Your task to perform on an android device: What is the recent news? Image 0: 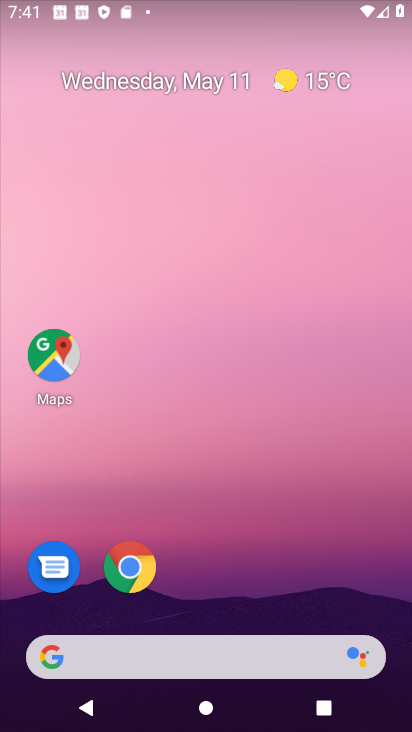
Step 0: press home button
Your task to perform on an android device: What is the recent news? Image 1: 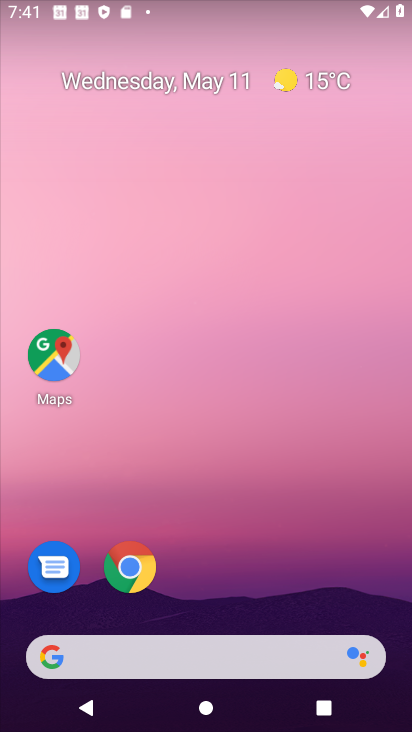
Step 1: click (60, 660)
Your task to perform on an android device: What is the recent news? Image 2: 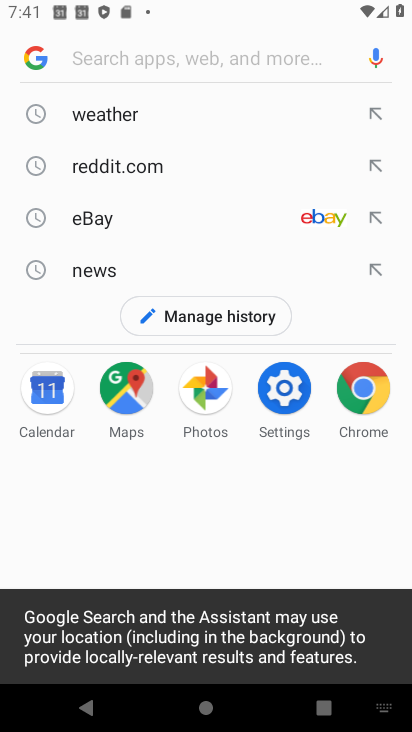
Step 2: click (99, 270)
Your task to perform on an android device: What is the recent news? Image 3: 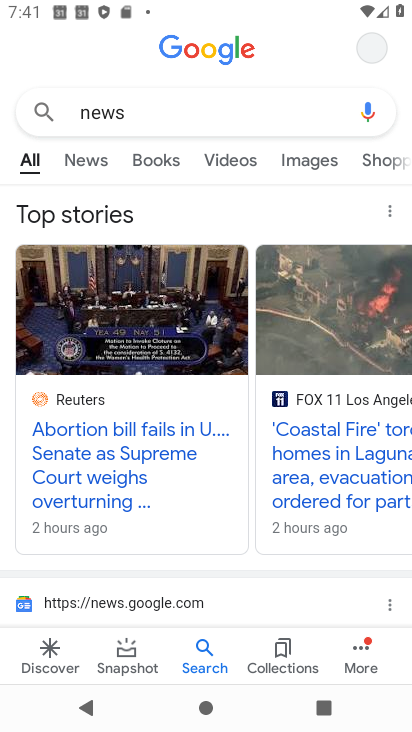
Step 3: click (80, 161)
Your task to perform on an android device: What is the recent news? Image 4: 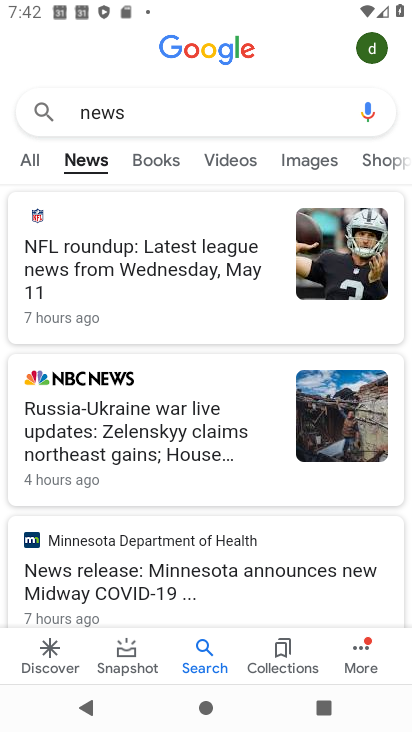
Step 4: task complete